Your task to perform on an android device: set the stopwatch Image 0: 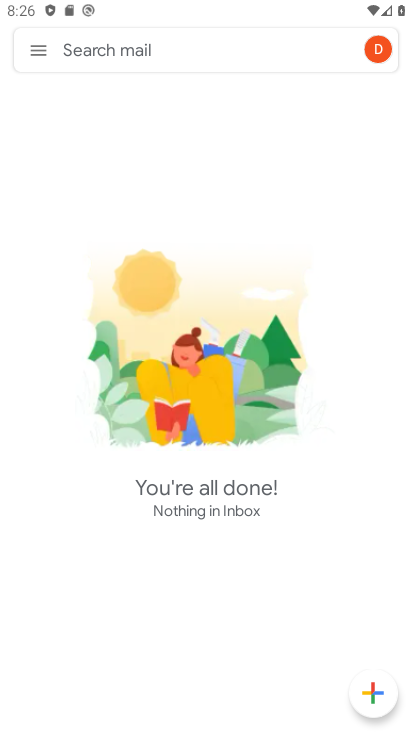
Step 0: press home button
Your task to perform on an android device: set the stopwatch Image 1: 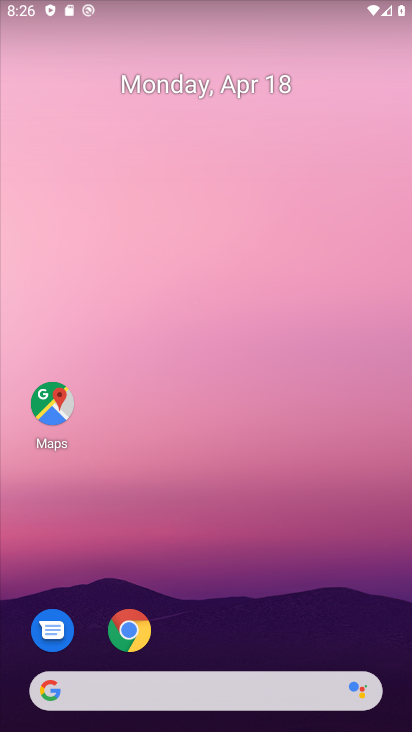
Step 1: drag from (206, 629) to (246, 257)
Your task to perform on an android device: set the stopwatch Image 2: 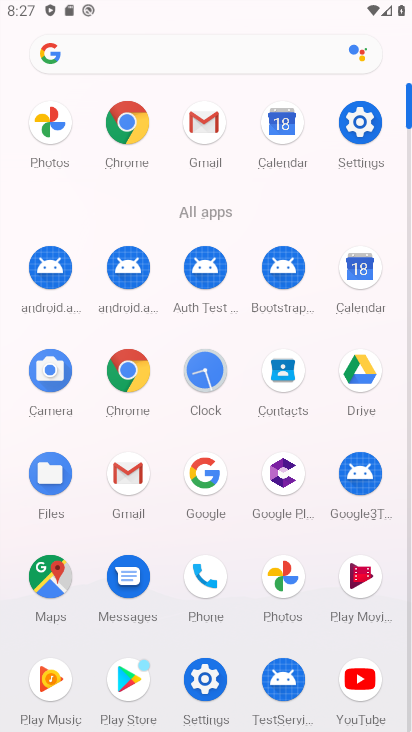
Step 2: click (209, 371)
Your task to perform on an android device: set the stopwatch Image 3: 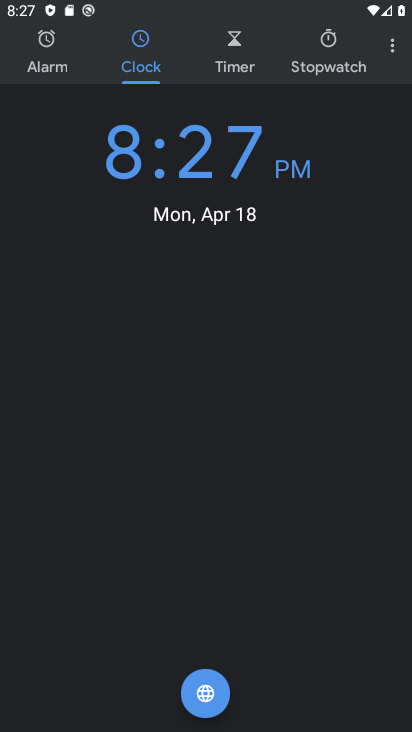
Step 3: click (332, 57)
Your task to perform on an android device: set the stopwatch Image 4: 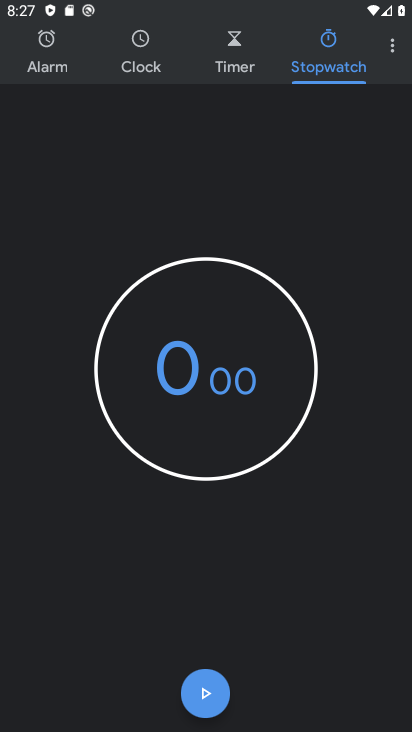
Step 4: click (211, 701)
Your task to perform on an android device: set the stopwatch Image 5: 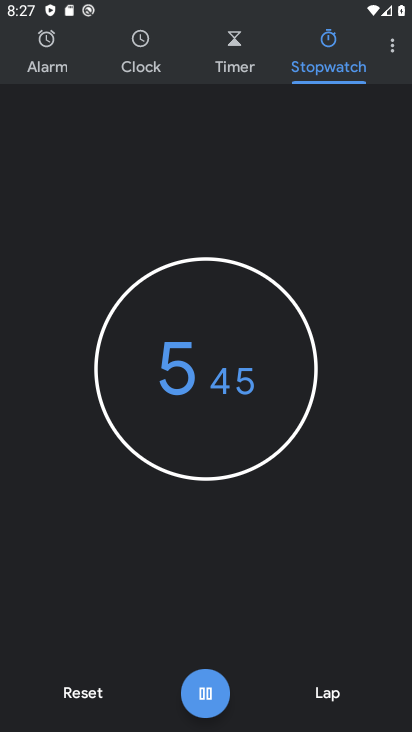
Step 5: task complete